Your task to perform on an android device: open app "Yahoo Mail" (install if not already installed) and go to login screen Image 0: 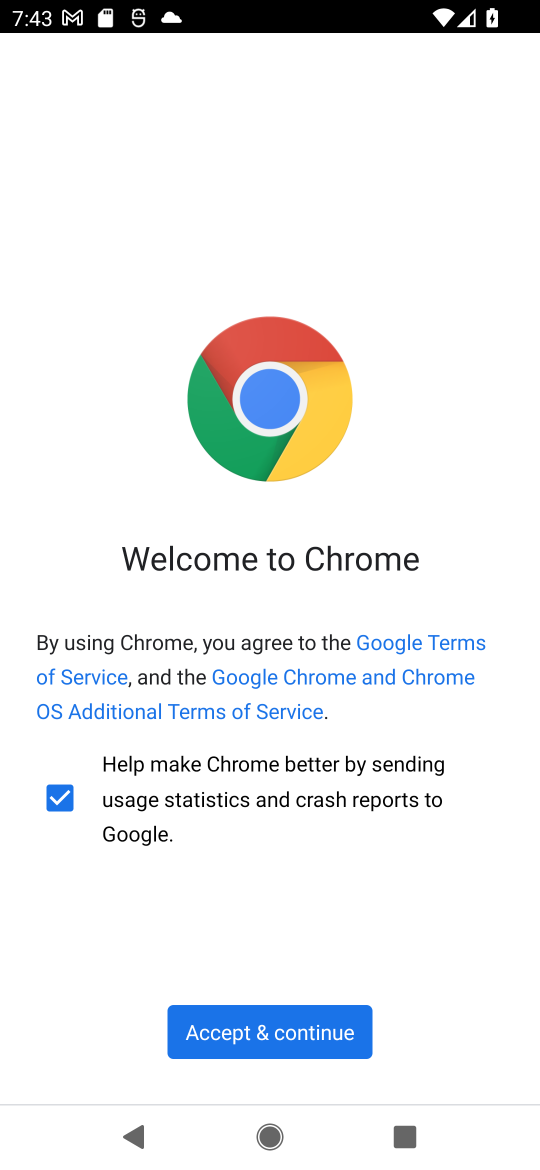
Step 0: press home button
Your task to perform on an android device: open app "Yahoo Mail" (install if not already installed) and go to login screen Image 1: 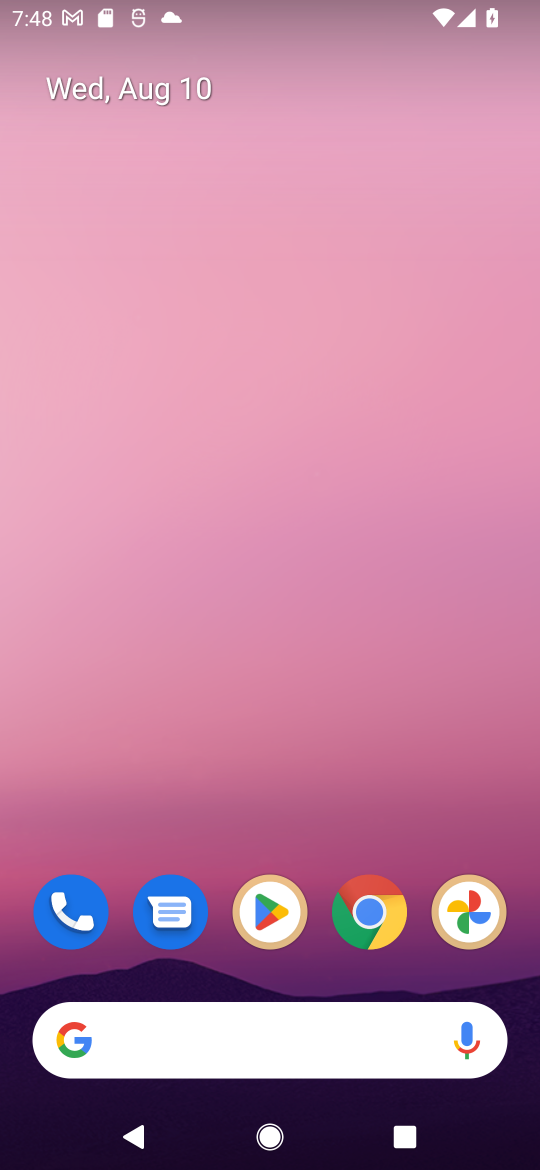
Step 1: drag from (424, 952) to (262, 10)
Your task to perform on an android device: open app "Yahoo Mail" (install if not already installed) and go to login screen Image 2: 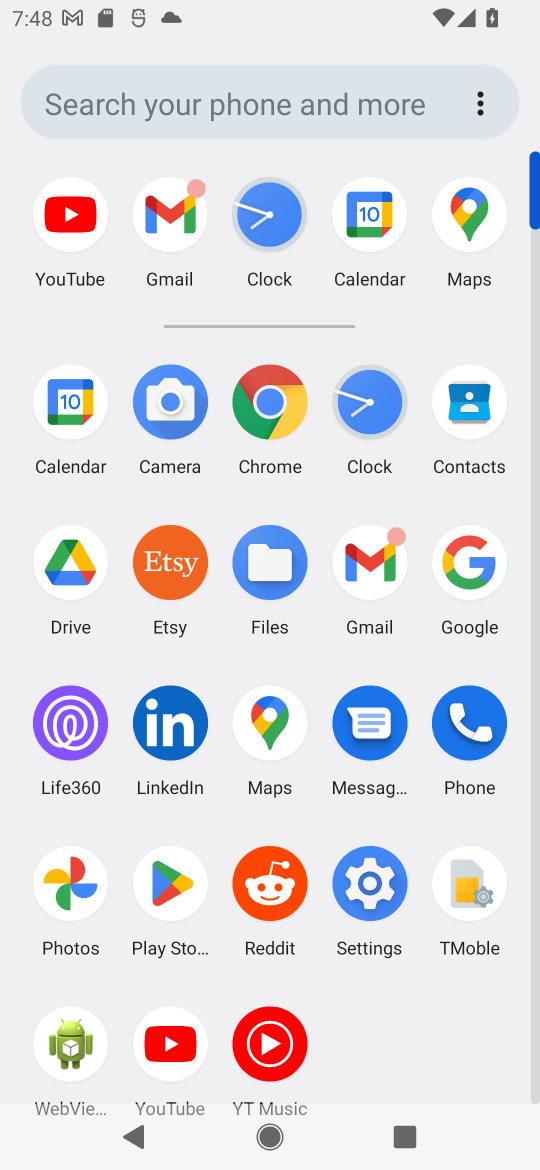
Step 2: click (180, 897)
Your task to perform on an android device: open app "Yahoo Mail" (install if not already installed) and go to login screen Image 3: 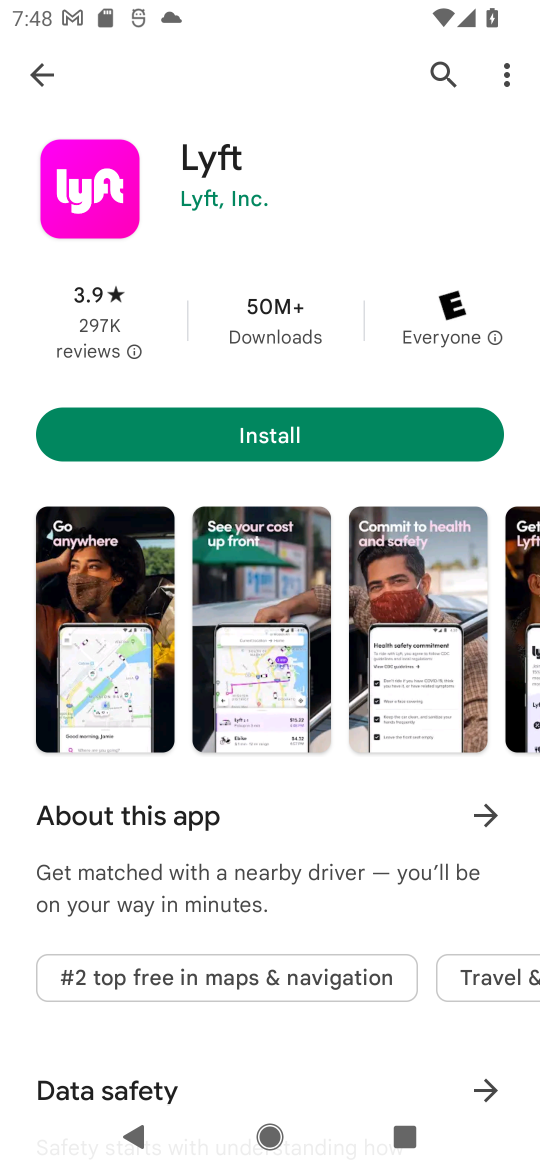
Step 3: press back button
Your task to perform on an android device: open app "Yahoo Mail" (install if not already installed) and go to login screen Image 4: 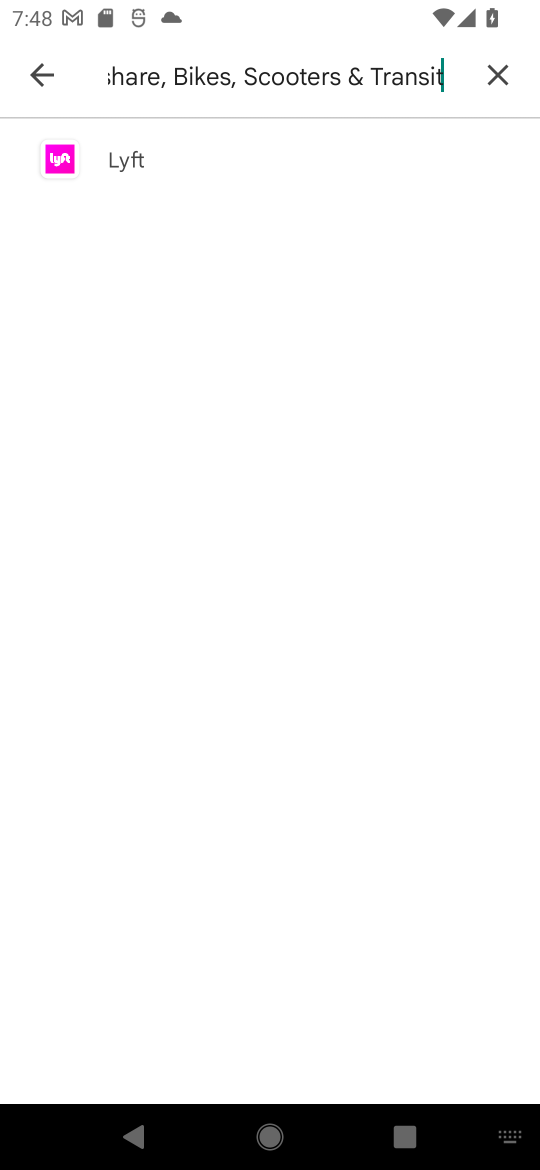
Step 4: press back button
Your task to perform on an android device: open app "Yahoo Mail" (install if not already installed) and go to login screen Image 5: 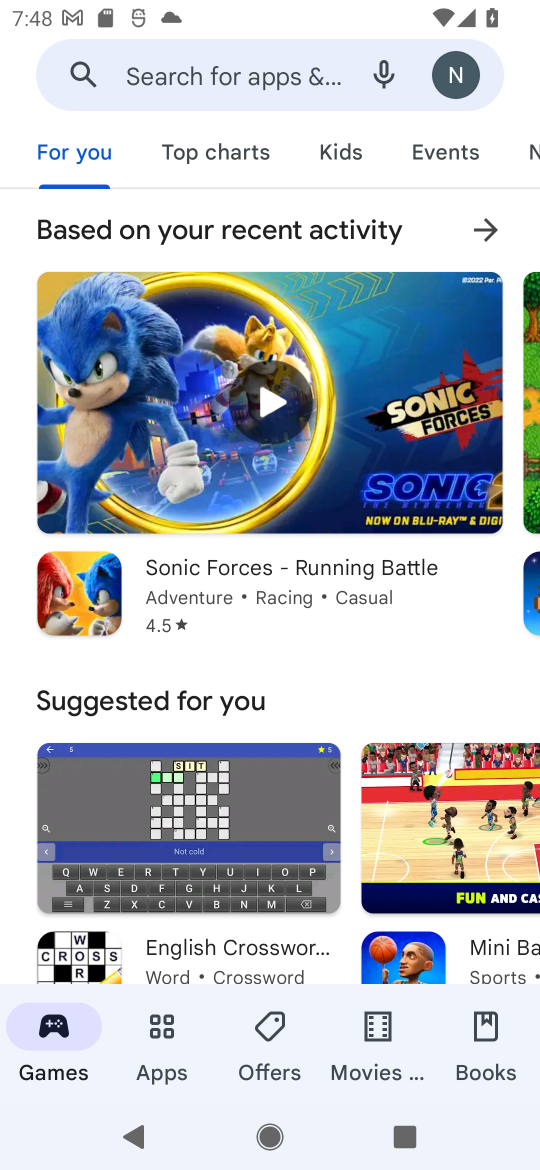
Step 5: click (302, 76)
Your task to perform on an android device: open app "Yahoo Mail" (install if not already installed) and go to login screen Image 6: 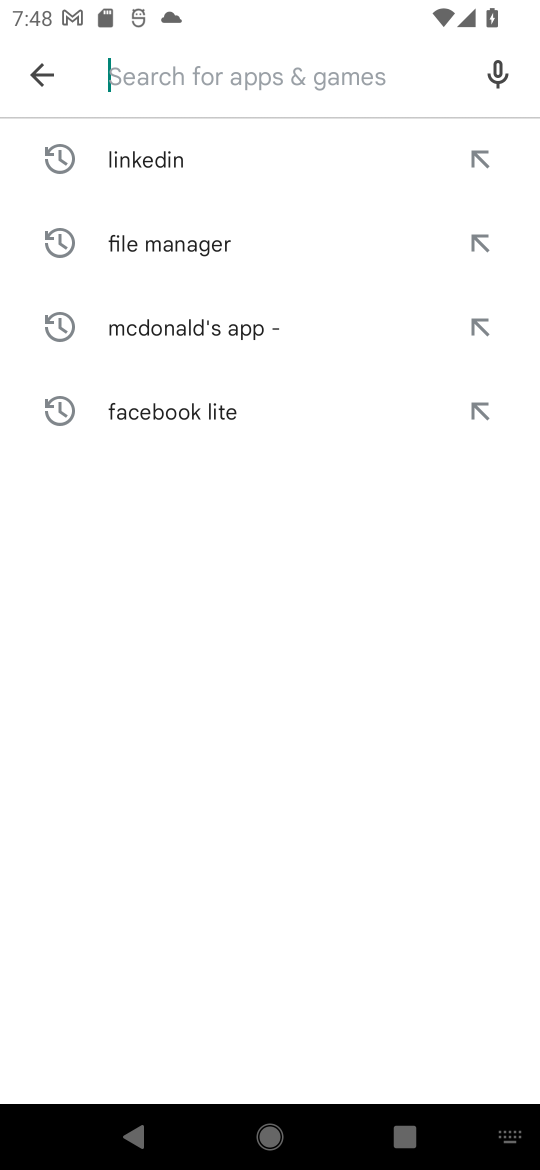
Step 6: type "Yahoo Mail"
Your task to perform on an android device: open app "Yahoo Mail" (install if not already installed) and go to login screen Image 7: 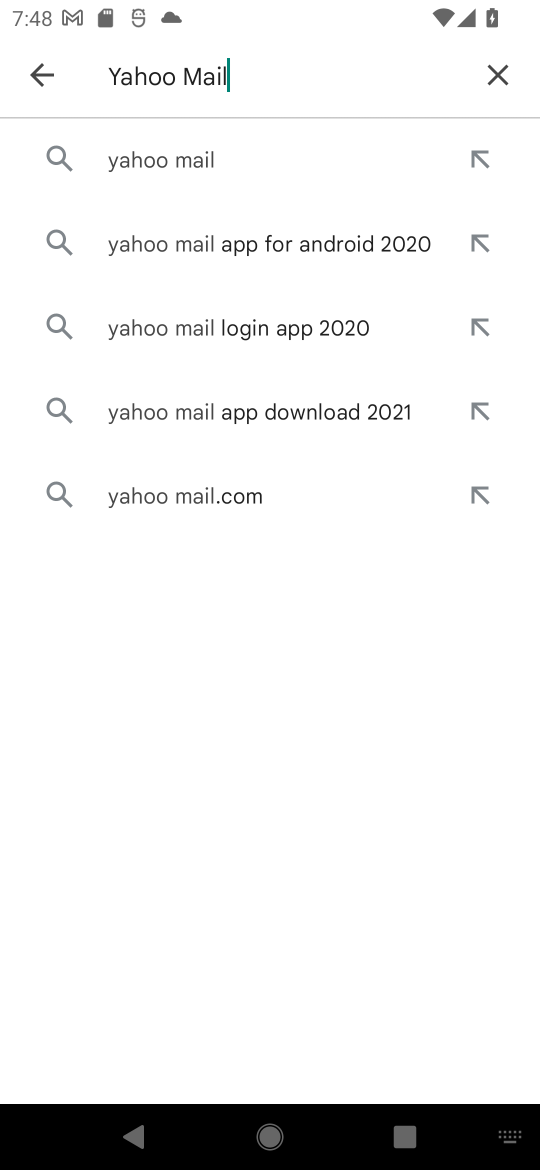
Step 7: click (200, 154)
Your task to perform on an android device: open app "Yahoo Mail" (install if not already installed) and go to login screen Image 8: 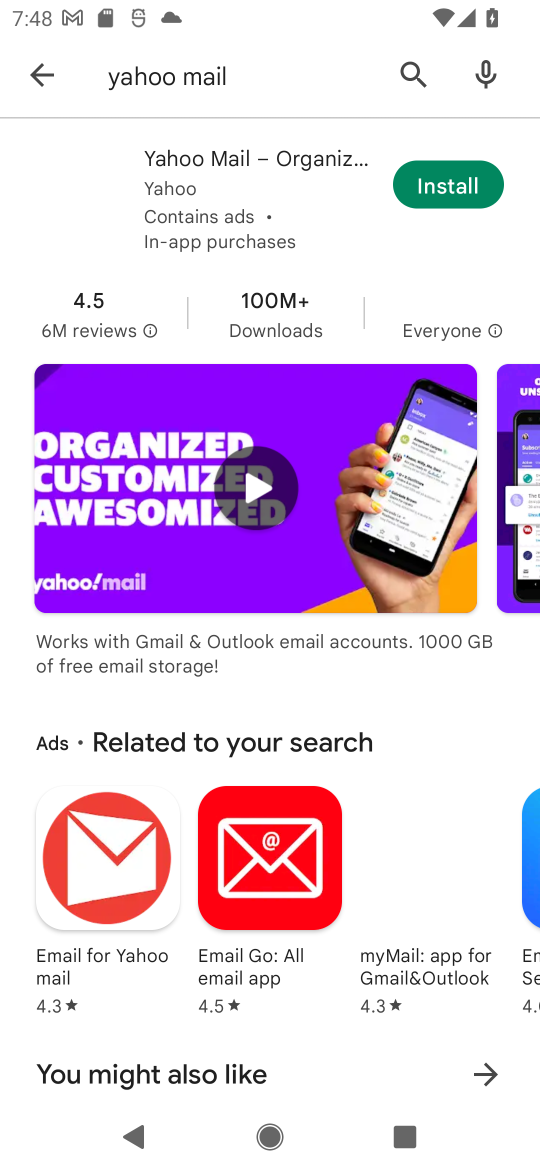
Step 8: task complete